Your task to perform on an android device: When is my next meeting? Image 0: 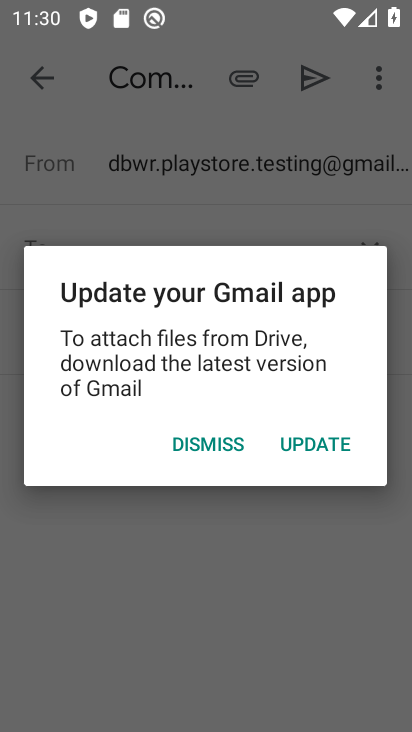
Step 0: press home button
Your task to perform on an android device: When is my next meeting? Image 1: 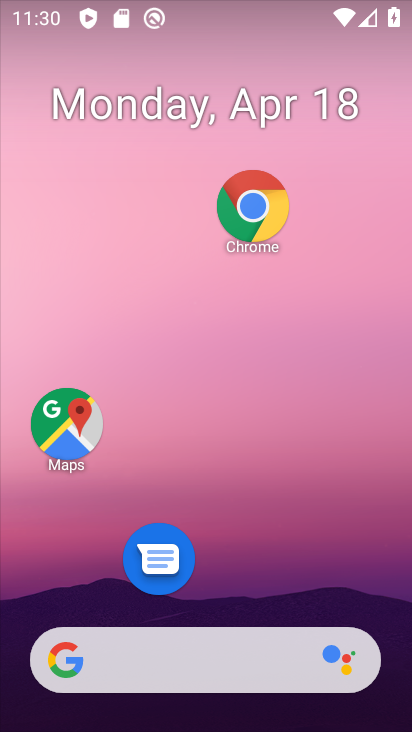
Step 1: drag from (237, 475) to (239, 25)
Your task to perform on an android device: When is my next meeting? Image 2: 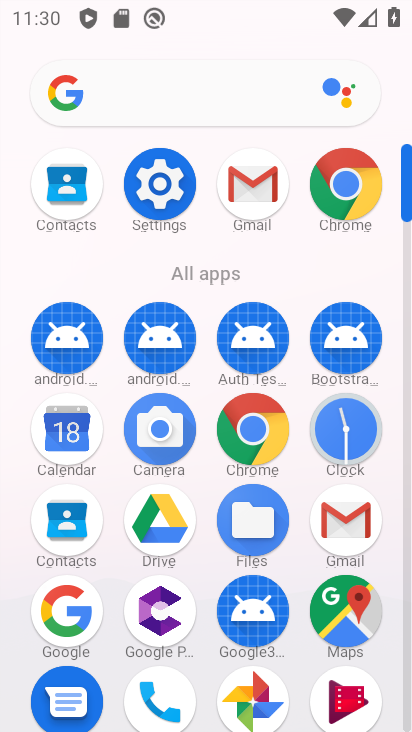
Step 2: click (56, 431)
Your task to perform on an android device: When is my next meeting? Image 3: 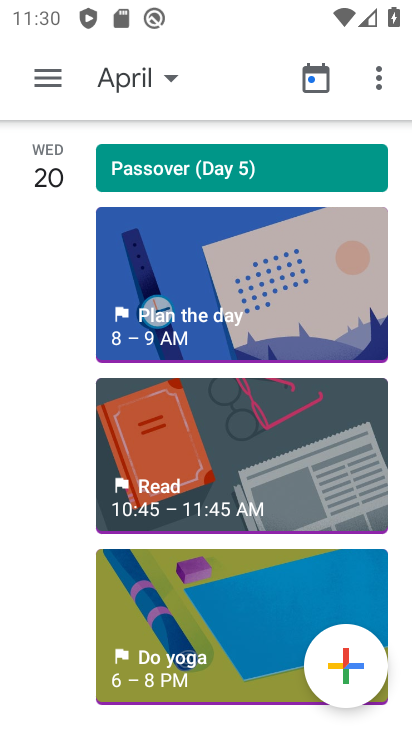
Step 3: click (161, 70)
Your task to perform on an android device: When is my next meeting? Image 4: 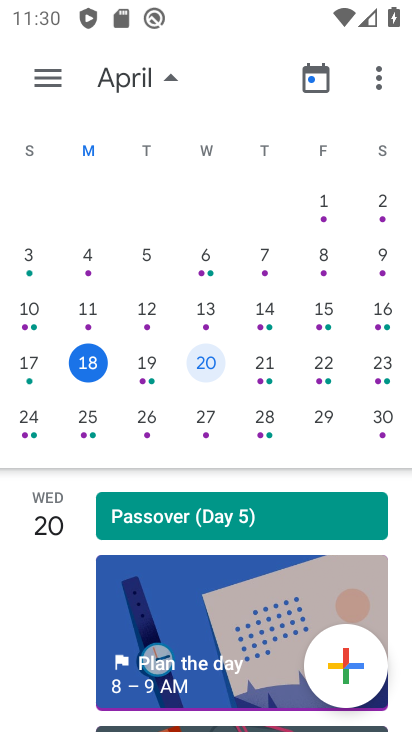
Step 4: click (205, 366)
Your task to perform on an android device: When is my next meeting? Image 5: 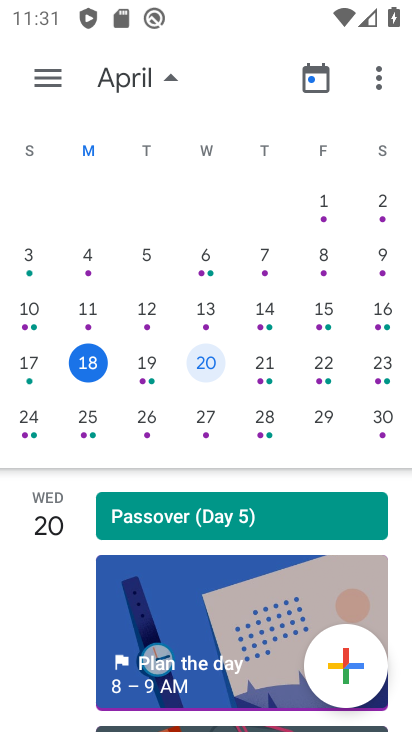
Step 5: task complete